Your task to perform on an android device: Open my contact list Image 0: 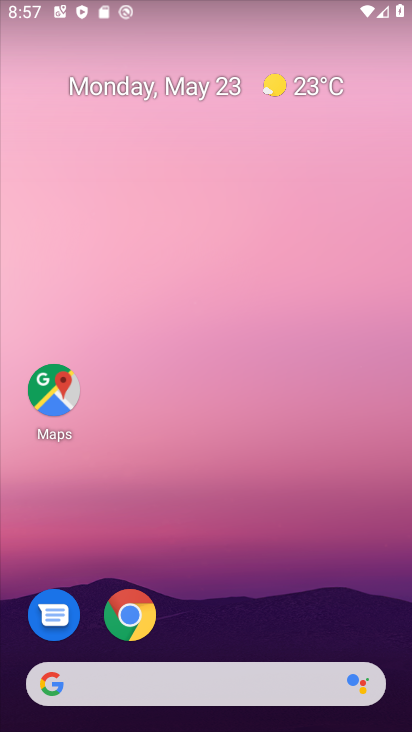
Step 0: drag from (231, 539) to (220, 65)
Your task to perform on an android device: Open my contact list Image 1: 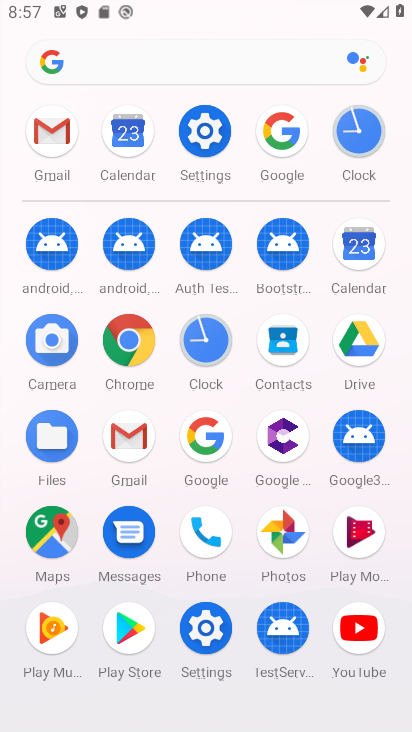
Step 1: click (286, 340)
Your task to perform on an android device: Open my contact list Image 2: 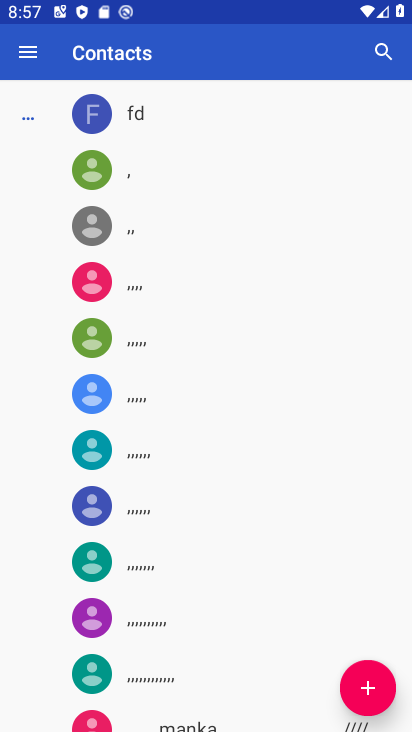
Step 2: task complete